Your task to perform on an android device: see sites visited before in the chrome app Image 0: 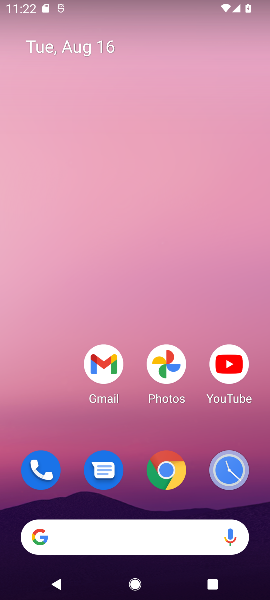
Step 0: click (167, 472)
Your task to perform on an android device: see sites visited before in the chrome app Image 1: 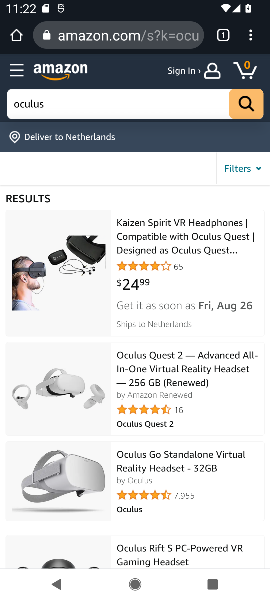
Step 1: click (252, 35)
Your task to perform on an android device: see sites visited before in the chrome app Image 2: 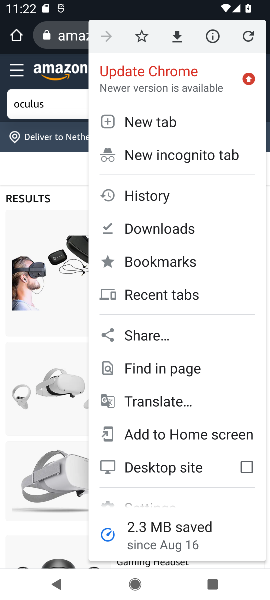
Step 2: click (173, 294)
Your task to perform on an android device: see sites visited before in the chrome app Image 3: 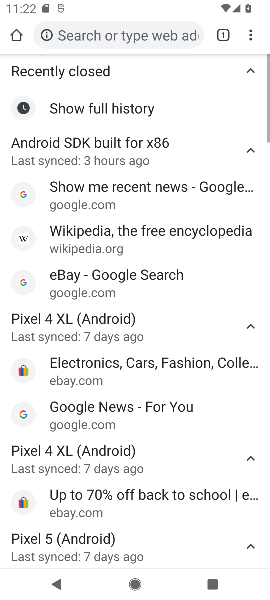
Step 3: task complete